Your task to perform on an android device: star an email in the gmail app Image 0: 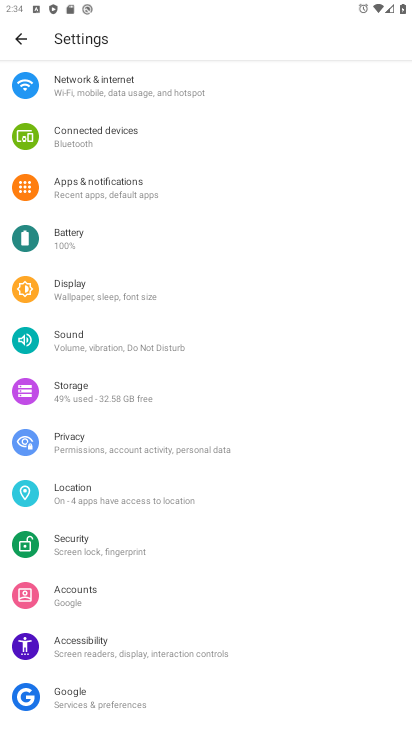
Step 0: press home button
Your task to perform on an android device: star an email in the gmail app Image 1: 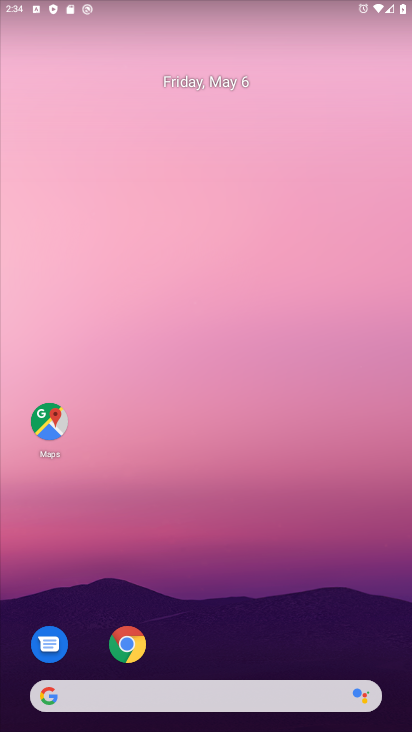
Step 1: click (278, 729)
Your task to perform on an android device: star an email in the gmail app Image 2: 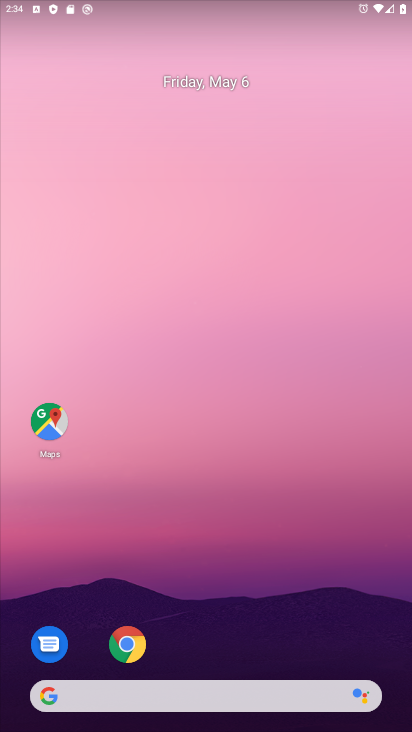
Step 2: drag from (241, 722) to (262, 244)
Your task to perform on an android device: star an email in the gmail app Image 3: 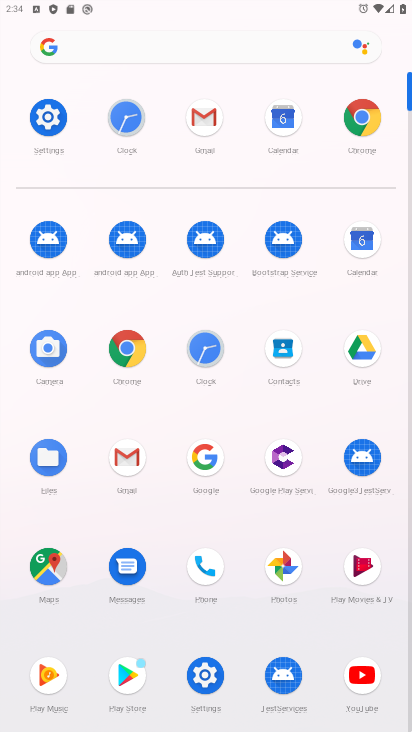
Step 3: click (115, 458)
Your task to perform on an android device: star an email in the gmail app Image 4: 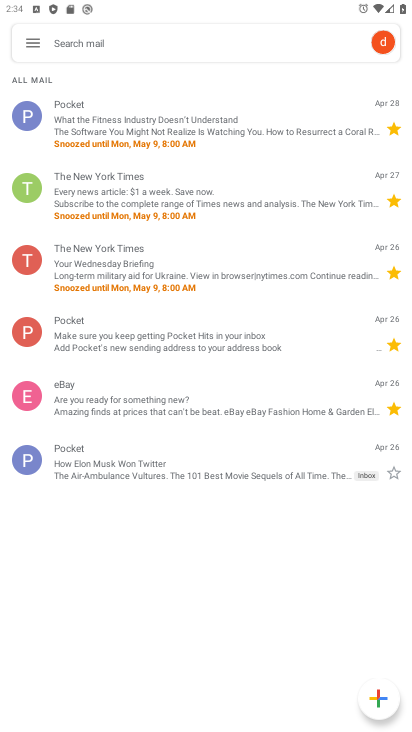
Step 4: click (273, 462)
Your task to perform on an android device: star an email in the gmail app Image 5: 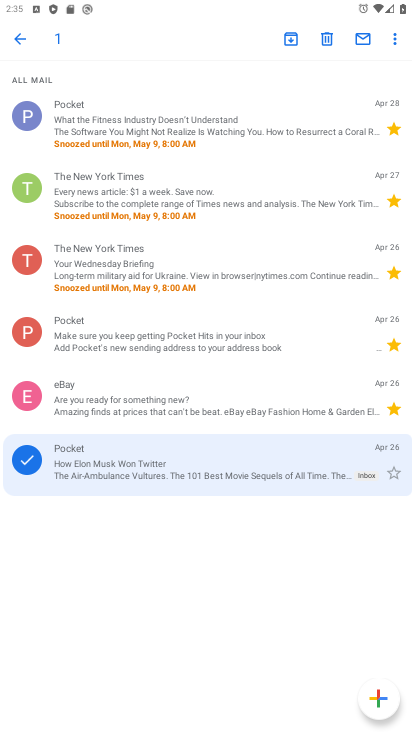
Step 5: click (388, 473)
Your task to perform on an android device: star an email in the gmail app Image 6: 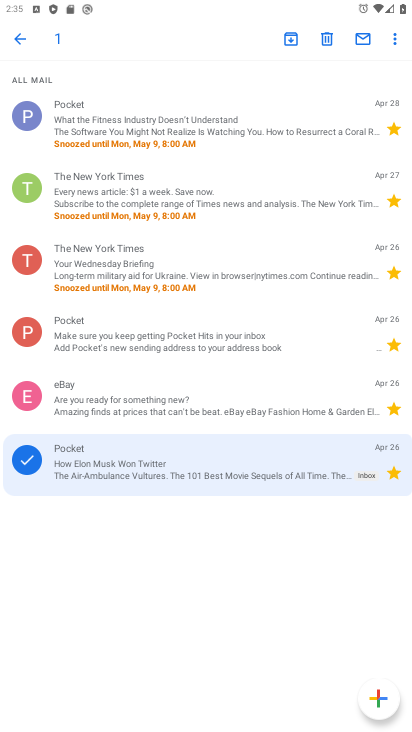
Step 6: click (205, 541)
Your task to perform on an android device: star an email in the gmail app Image 7: 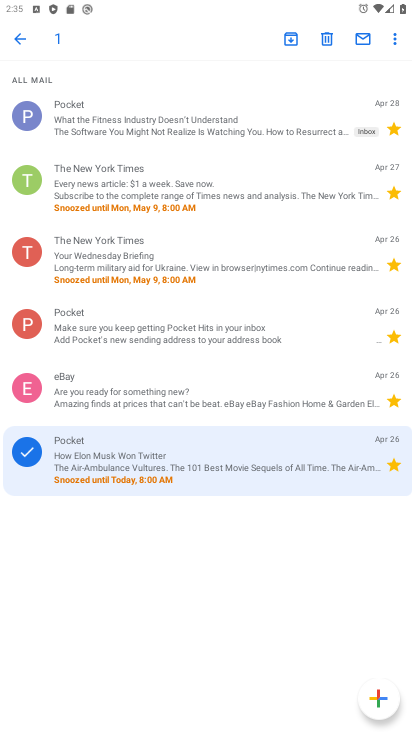
Step 7: task complete